Your task to perform on an android device: snooze an email in the gmail app Image 0: 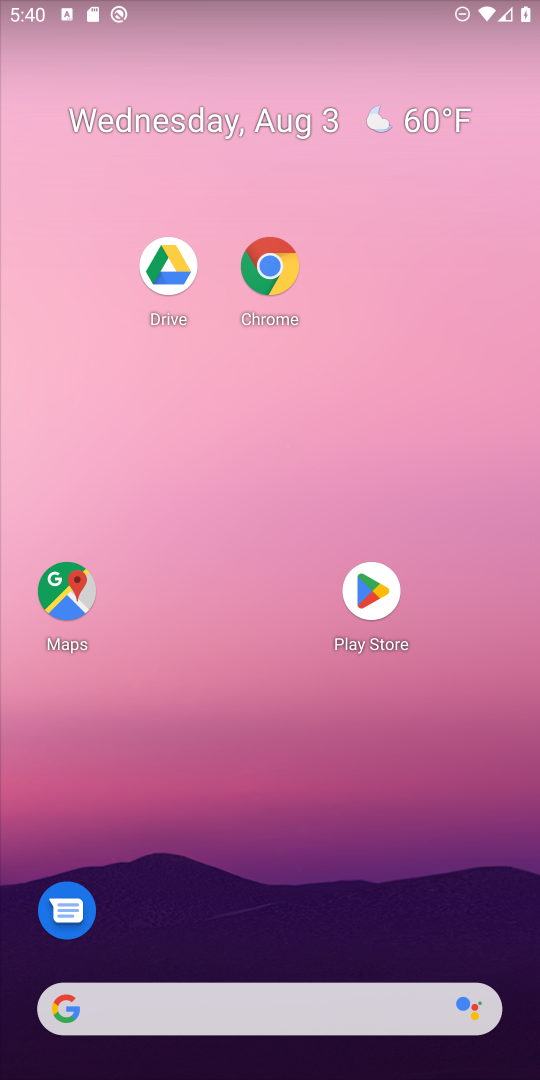
Step 0: drag from (512, 585) to (213, 9)
Your task to perform on an android device: snooze an email in the gmail app Image 1: 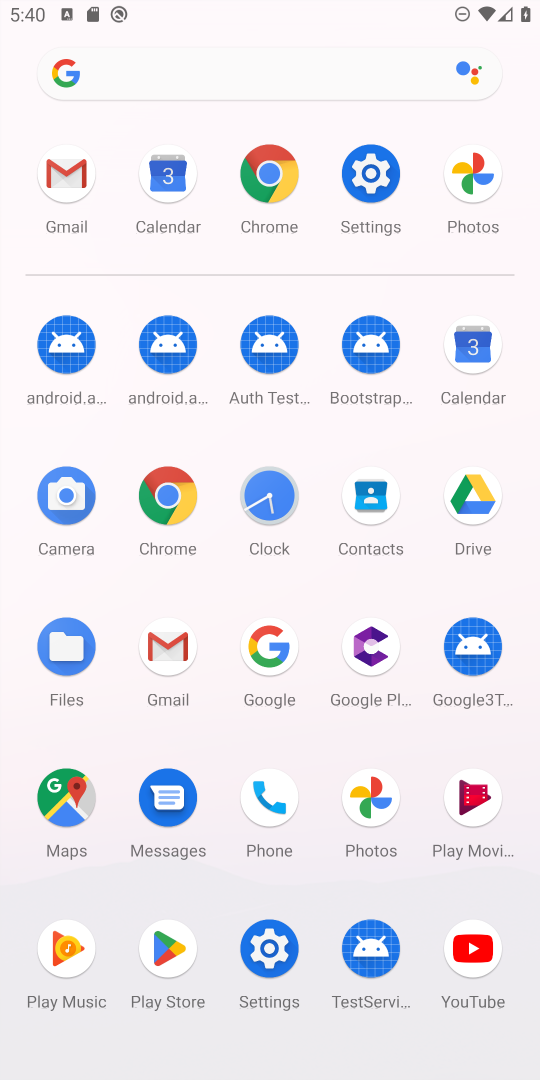
Step 1: click (164, 634)
Your task to perform on an android device: snooze an email in the gmail app Image 2: 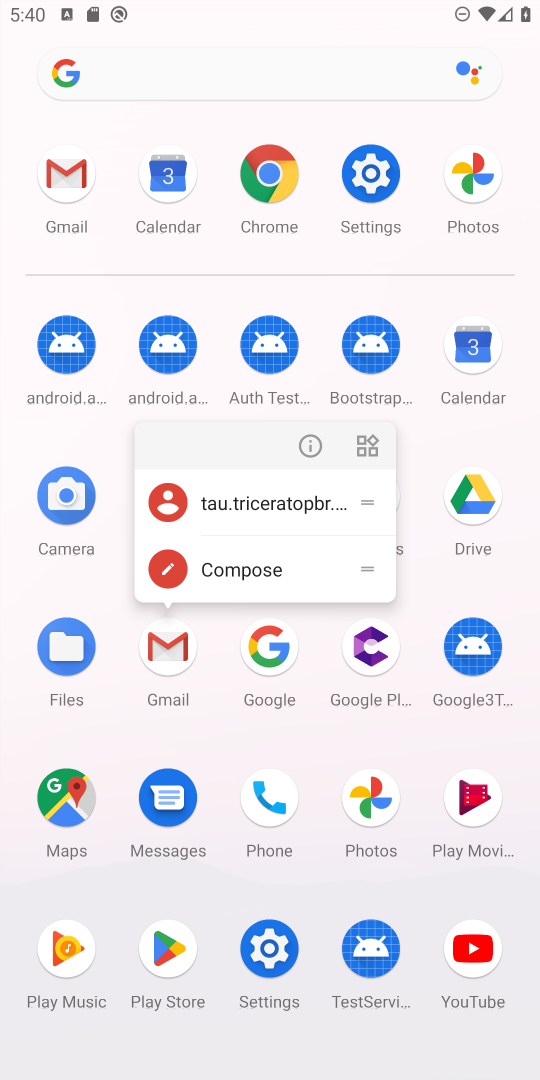
Step 2: click (173, 662)
Your task to perform on an android device: snooze an email in the gmail app Image 3: 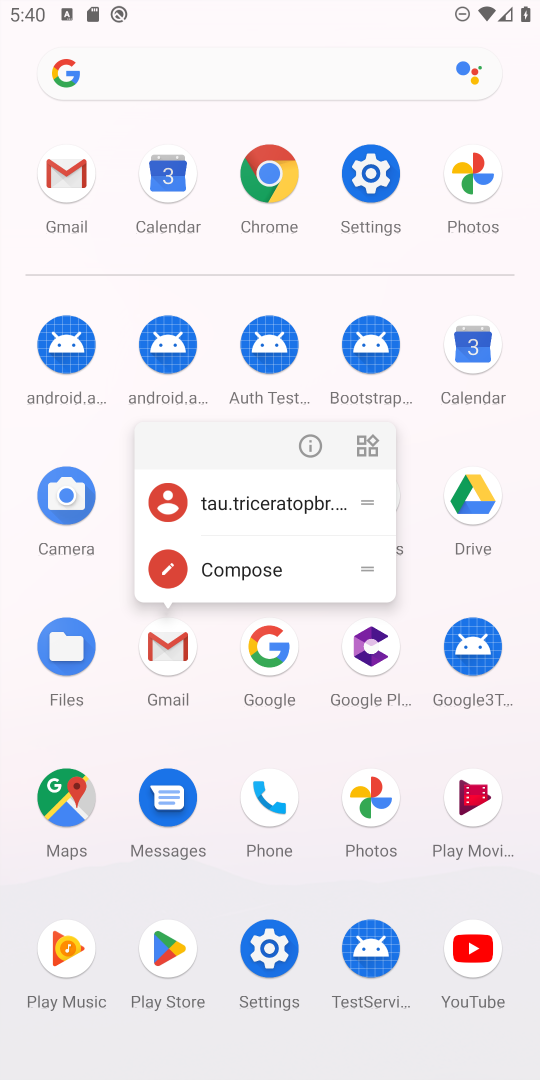
Step 3: click (173, 662)
Your task to perform on an android device: snooze an email in the gmail app Image 4: 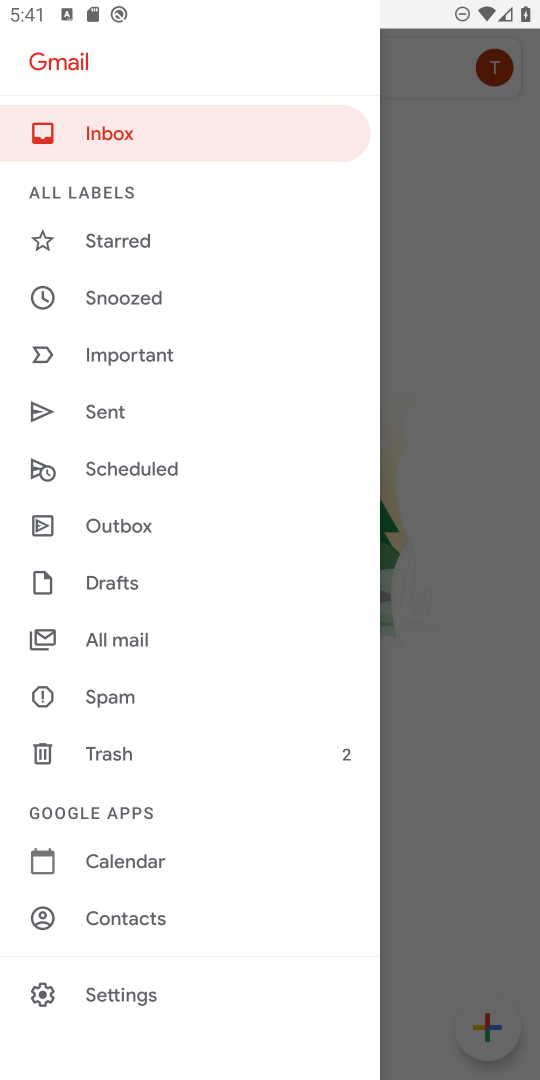
Step 4: click (140, 295)
Your task to perform on an android device: snooze an email in the gmail app Image 5: 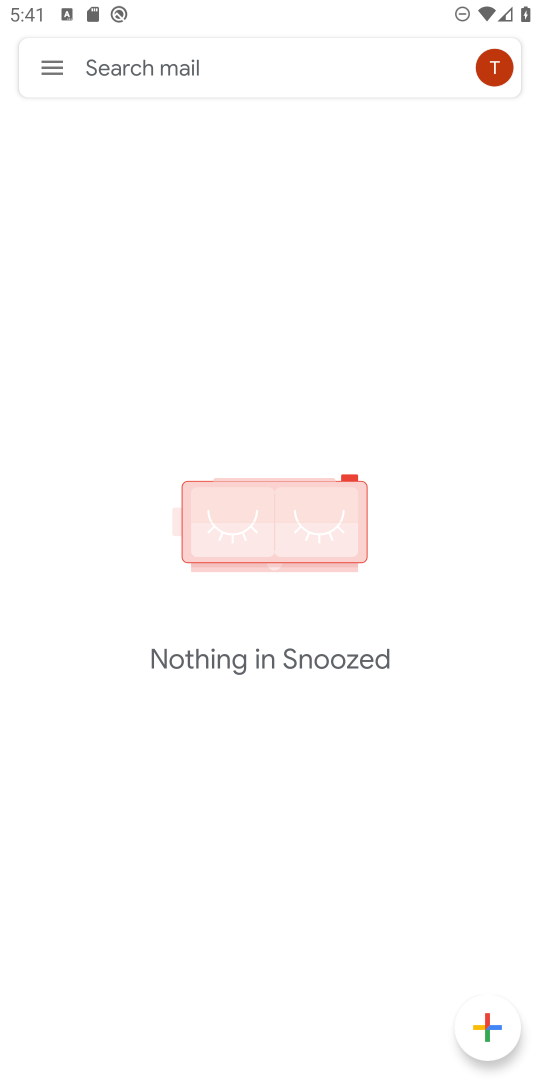
Step 5: task complete